Your task to perform on an android device: delete a single message in the gmail app Image 0: 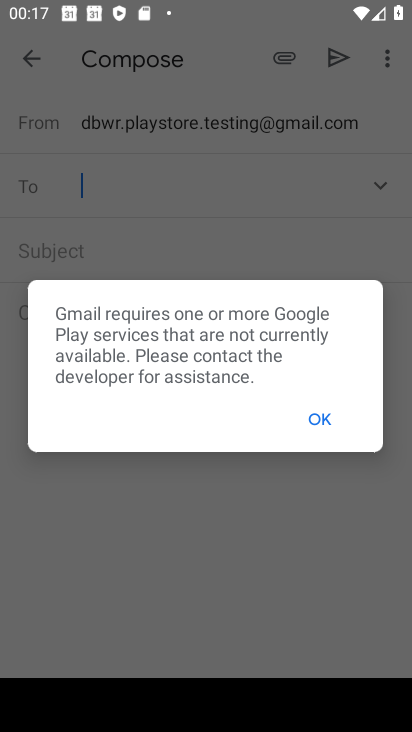
Step 0: press home button
Your task to perform on an android device: delete a single message in the gmail app Image 1: 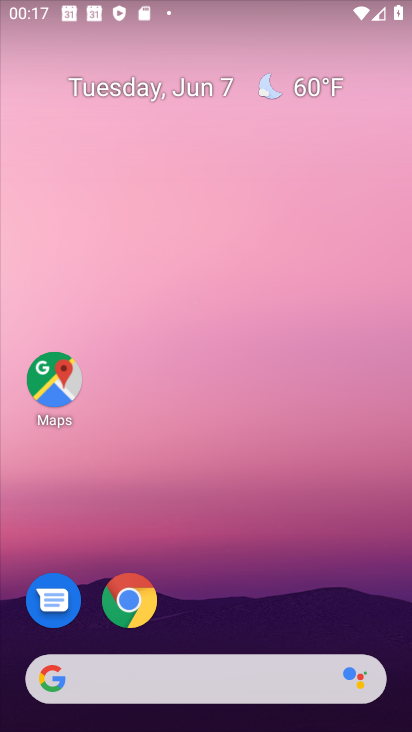
Step 1: drag from (212, 696) to (400, 73)
Your task to perform on an android device: delete a single message in the gmail app Image 2: 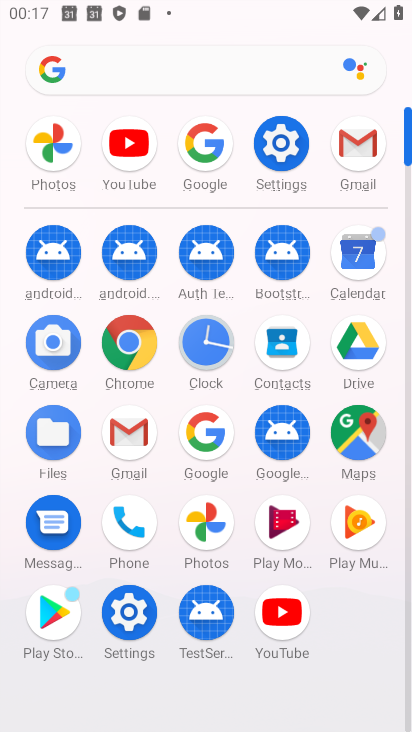
Step 2: click (130, 436)
Your task to perform on an android device: delete a single message in the gmail app Image 3: 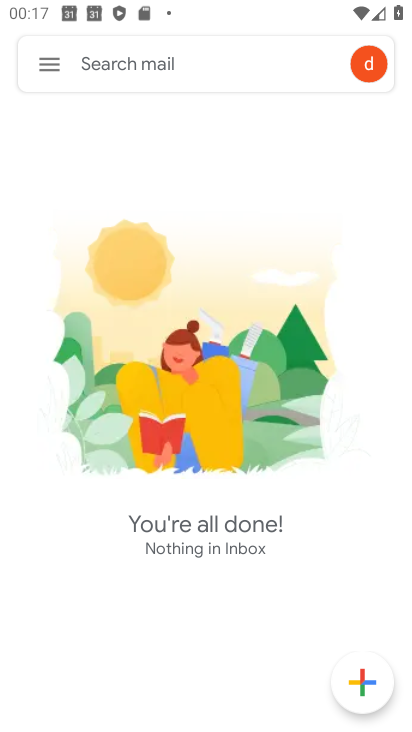
Step 3: click (50, 63)
Your task to perform on an android device: delete a single message in the gmail app Image 4: 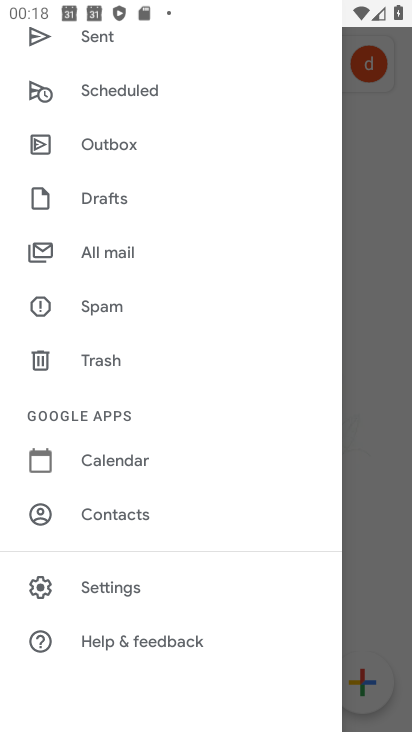
Step 4: drag from (197, 142) to (205, 531)
Your task to perform on an android device: delete a single message in the gmail app Image 5: 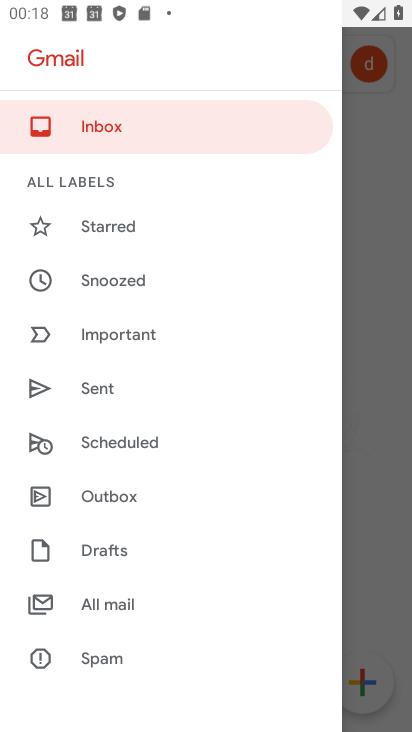
Step 5: drag from (195, 658) to (213, 298)
Your task to perform on an android device: delete a single message in the gmail app Image 6: 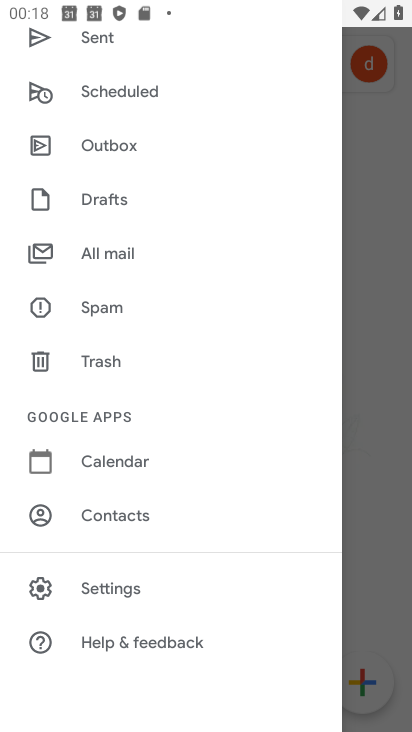
Step 6: drag from (193, 101) to (214, 552)
Your task to perform on an android device: delete a single message in the gmail app Image 7: 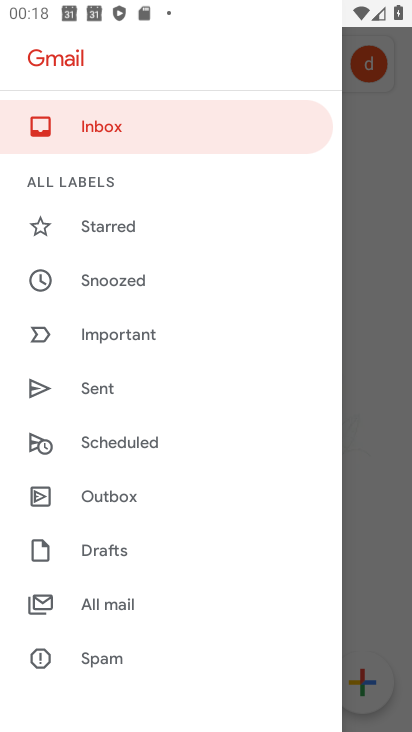
Step 7: click (105, 127)
Your task to perform on an android device: delete a single message in the gmail app Image 8: 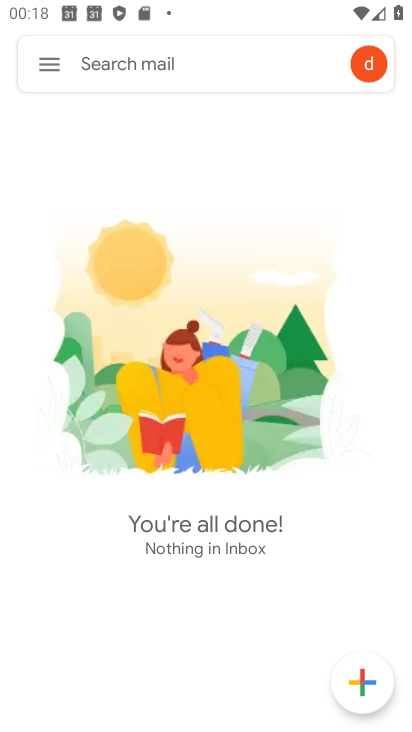
Step 8: task complete